Your task to perform on an android device: toggle pop-ups in chrome Image 0: 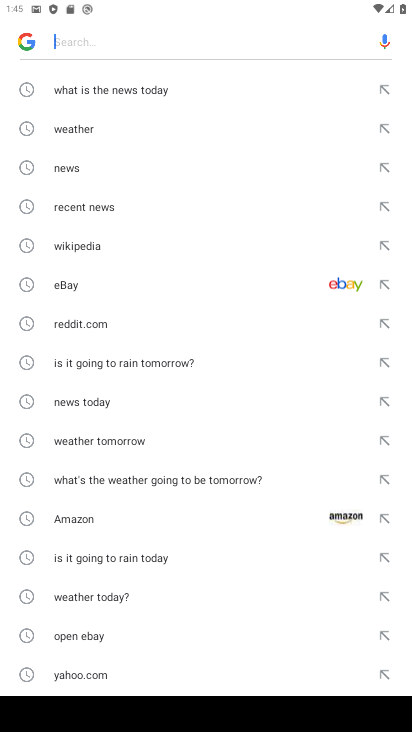
Step 0: press home button
Your task to perform on an android device: toggle pop-ups in chrome Image 1: 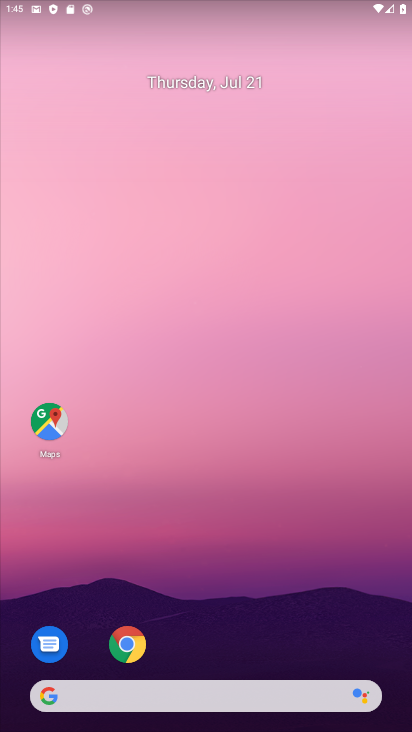
Step 1: click (128, 646)
Your task to perform on an android device: toggle pop-ups in chrome Image 2: 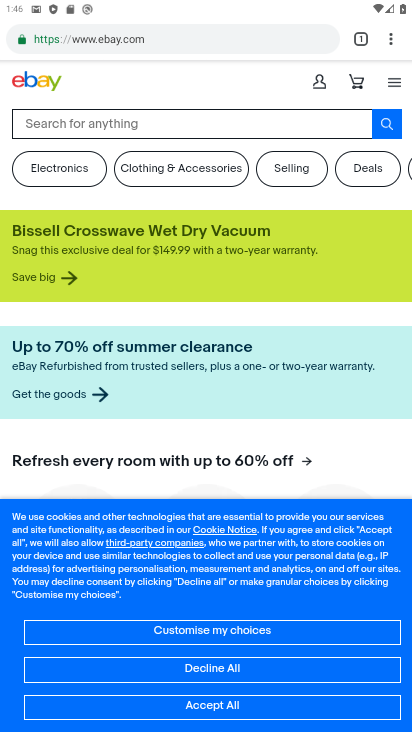
Step 2: click (399, 51)
Your task to perform on an android device: toggle pop-ups in chrome Image 3: 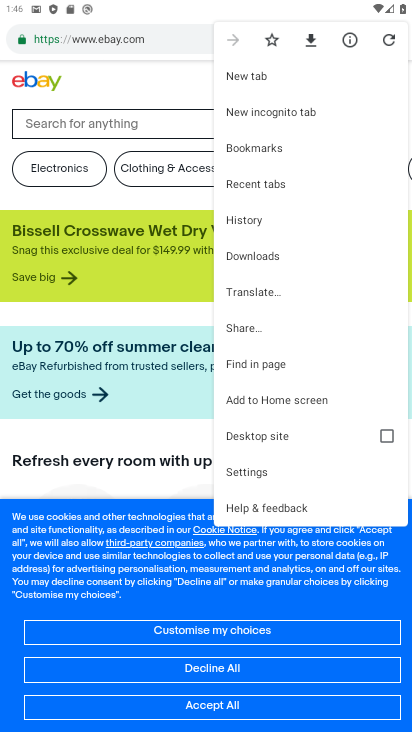
Step 3: click (295, 474)
Your task to perform on an android device: toggle pop-ups in chrome Image 4: 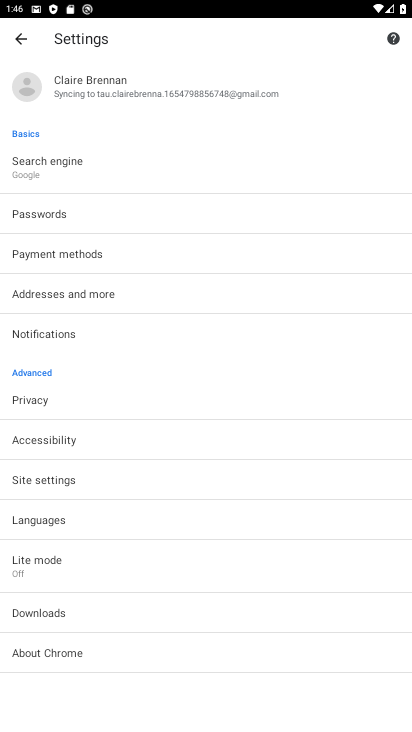
Step 4: click (123, 480)
Your task to perform on an android device: toggle pop-ups in chrome Image 5: 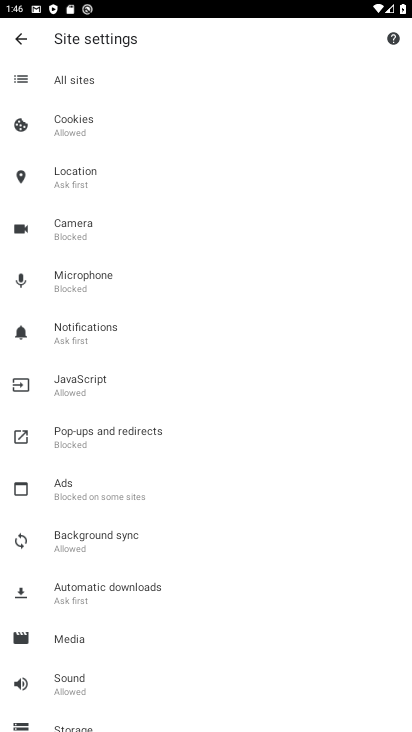
Step 5: click (139, 440)
Your task to perform on an android device: toggle pop-ups in chrome Image 6: 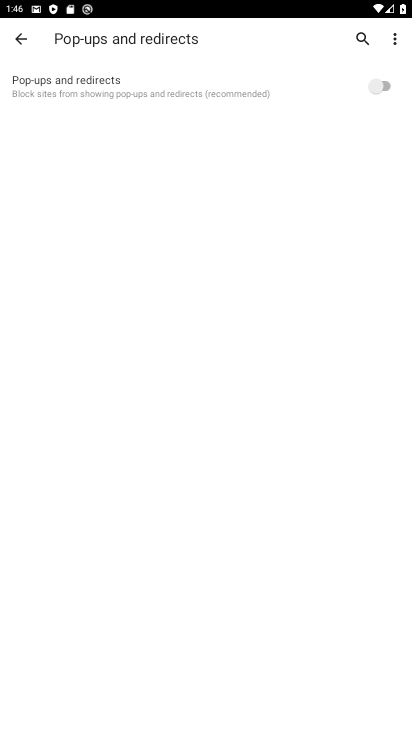
Step 6: click (391, 93)
Your task to perform on an android device: toggle pop-ups in chrome Image 7: 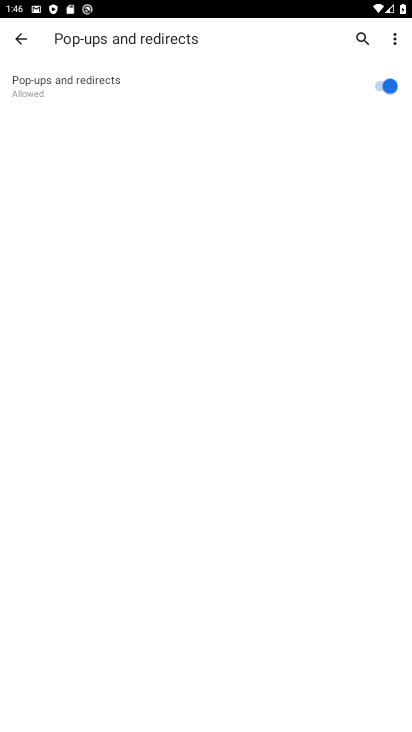
Step 7: task complete